Your task to perform on an android device: toggle wifi Image 0: 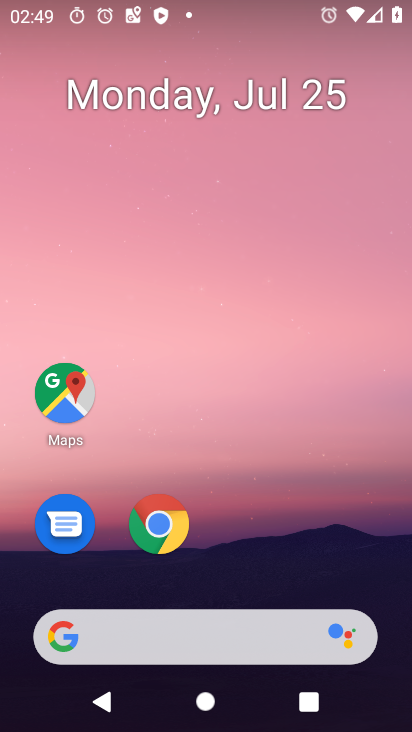
Step 0: press home button
Your task to perform on an android device: toggle wifi Image 1: 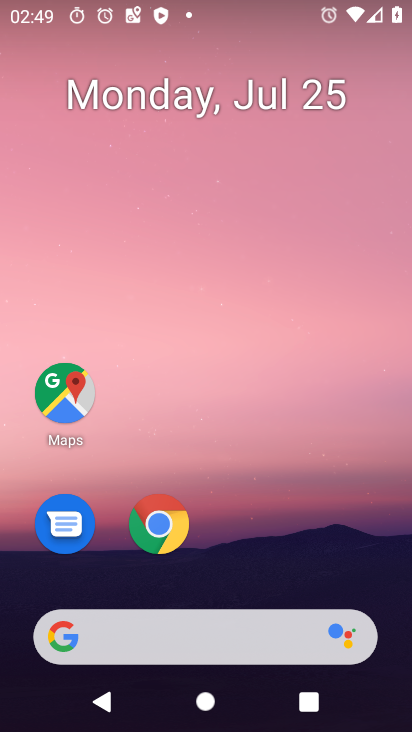
Step 1: drag from (198, 3) to (207, 451)
Your task to perform on an android device: toggle wifi Image 2: 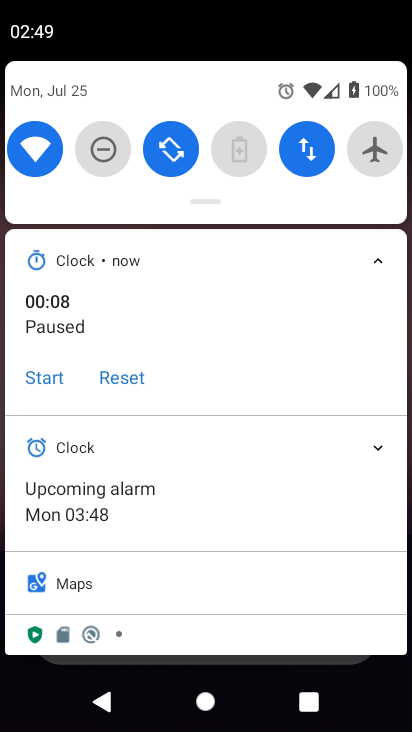
Step 2: click (28, 143)
Your task to perform on an android device: toggle wifi Image 3: 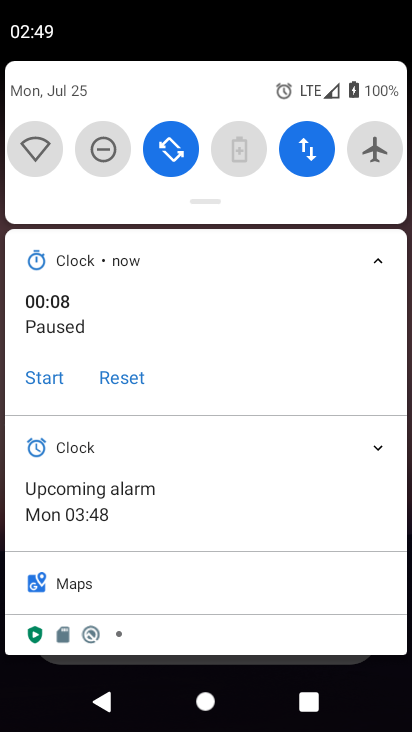
Step 3: task complete